Your task to perform on an android device: turn on notifications settings in the gmail app Image 0: 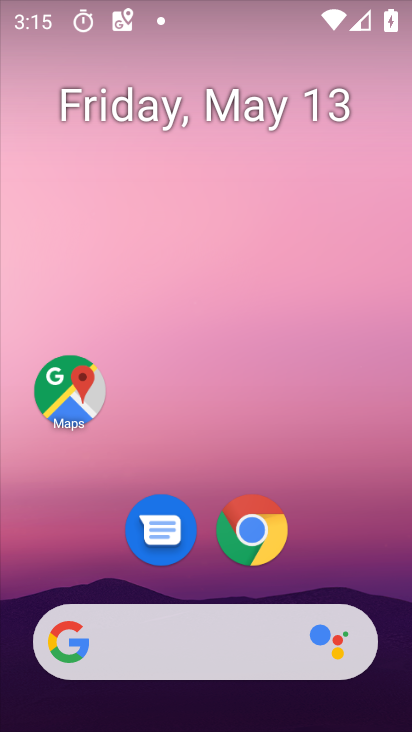
Step 0: drag from (342, 527) to (279, 0)
Your task to perform on an android device: turn on notifications settings in the gmail app Image 1: 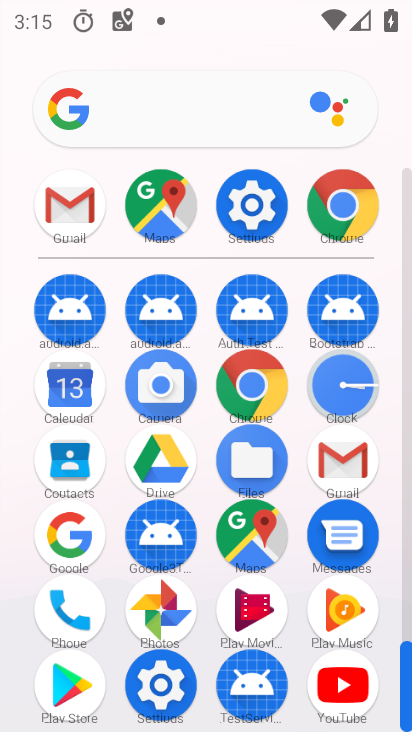
Step 1: click (64, 223)
Your task to perform on an android device: turn on notifications settings in the gmail app Image 2: 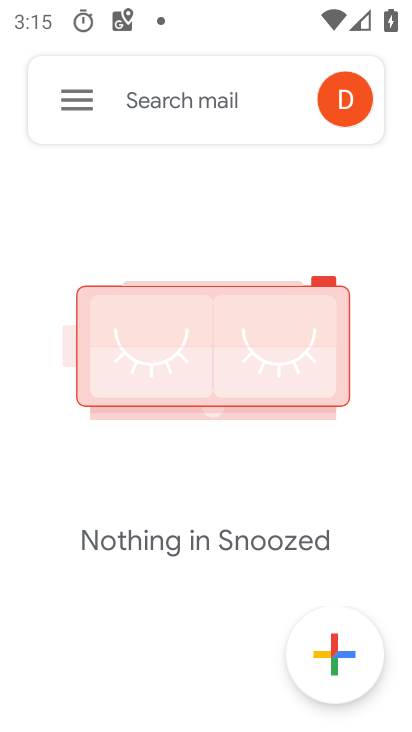
Step 2: click (70, 109)
Your task to perform on an android device: turn on notifications settings in the gmail app Image 3: 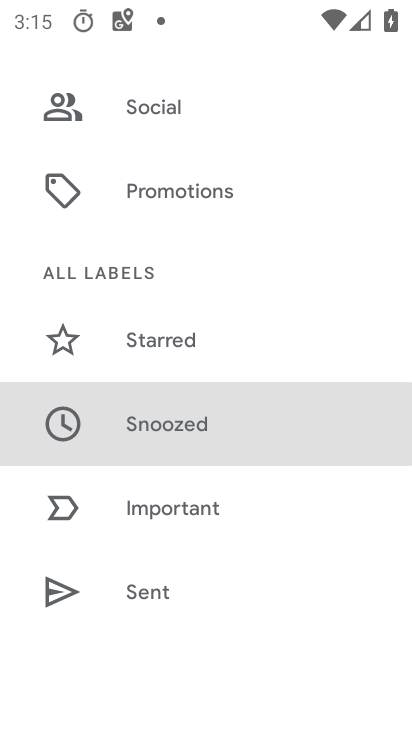
Step 3: drag from (148, 577) to (192, 108)
Your task to perform on an android device: turn on notifications settings in the gmail app Image 4: 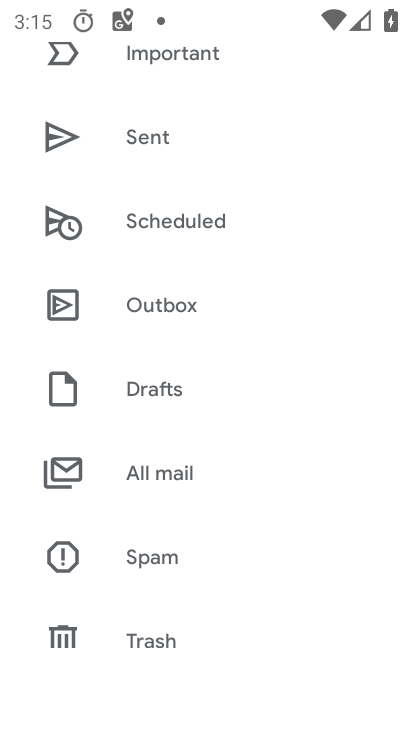
Step 4: drag from (162, 615) to (243, 162)
Your task to perform on an android device: turn on notifications settings in the gmail app Image 5: 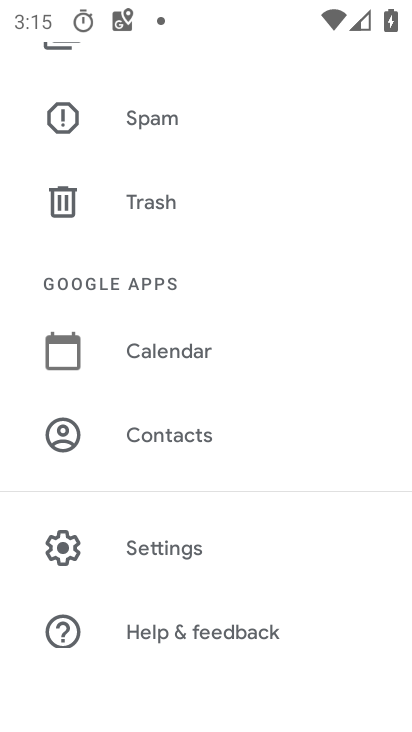
Step 5: click (146, 532)
Your task to perform on an android device: turn on notifications settings in the gmail app Image 6: 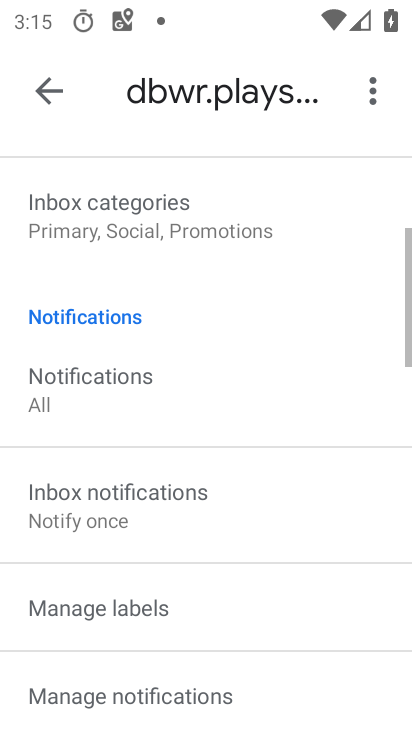
Step 6: drag from (213, 509) to (275, 238)
Your task to perform on an android device: turn on notifications settings in the gmail app Image 7: 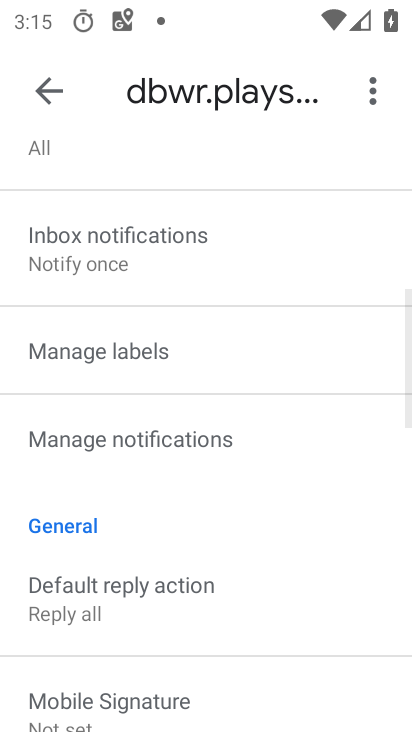
Step 7: click (187, 432)
Your task to perform on an android device: turn on notifications settings in the gmail app Image 8: 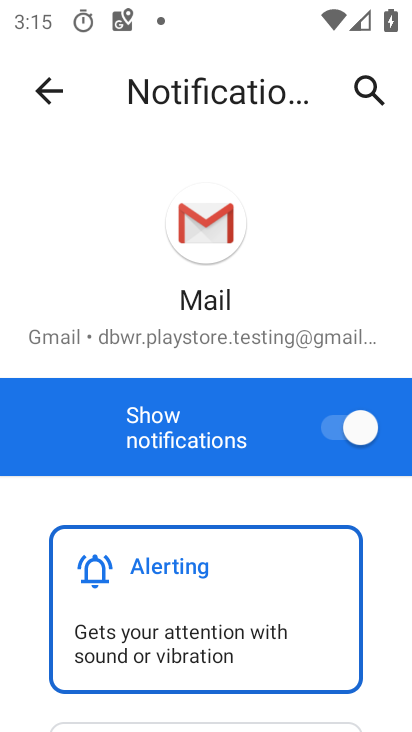
Step 8: task complete